Your task to perform on an android device: View the shopping cart on amazon.com. Add "corsair k70" to the cart on amazon.com, then select checkout. Image 0: 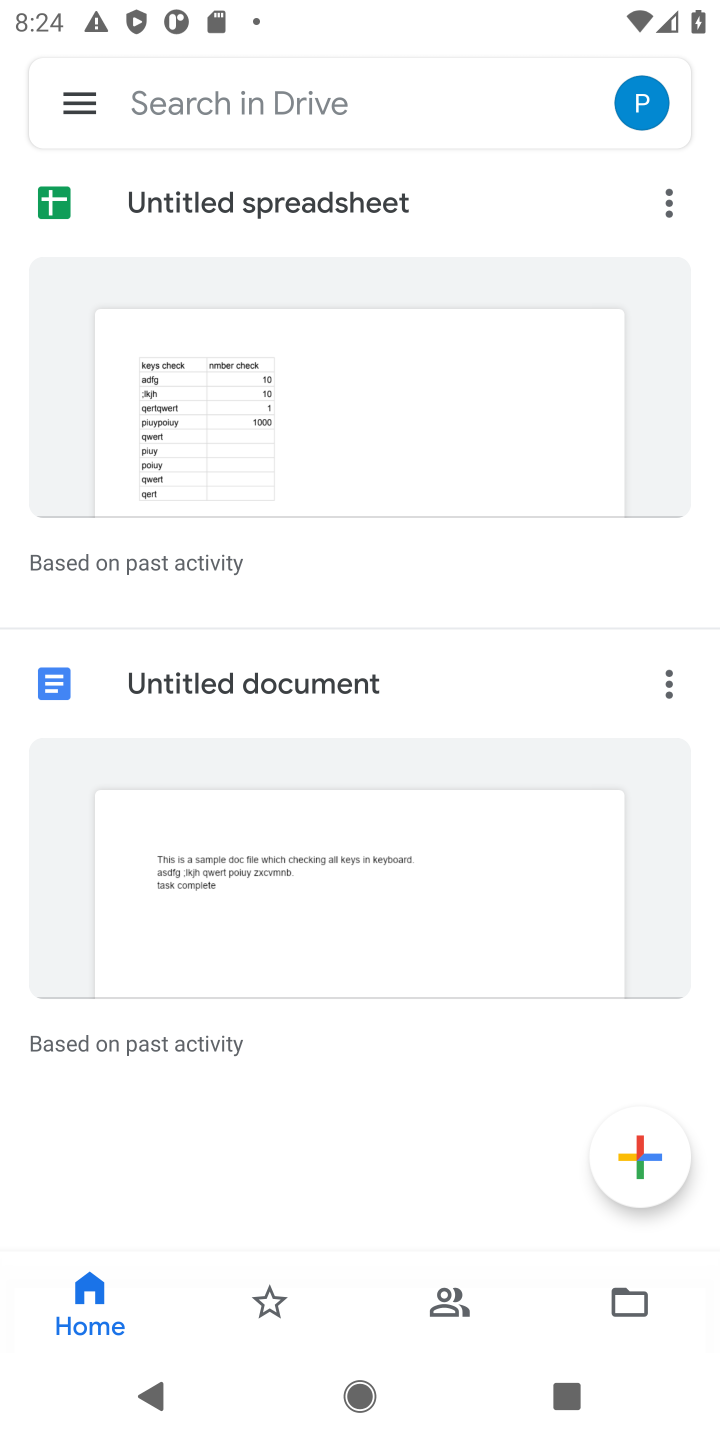
Step 0: press home button
Your task to perform on an android device: View the shopping cart on amazon.com. Add "corsair k70" to the cart on amazon.com, then select checkout. Image 1: 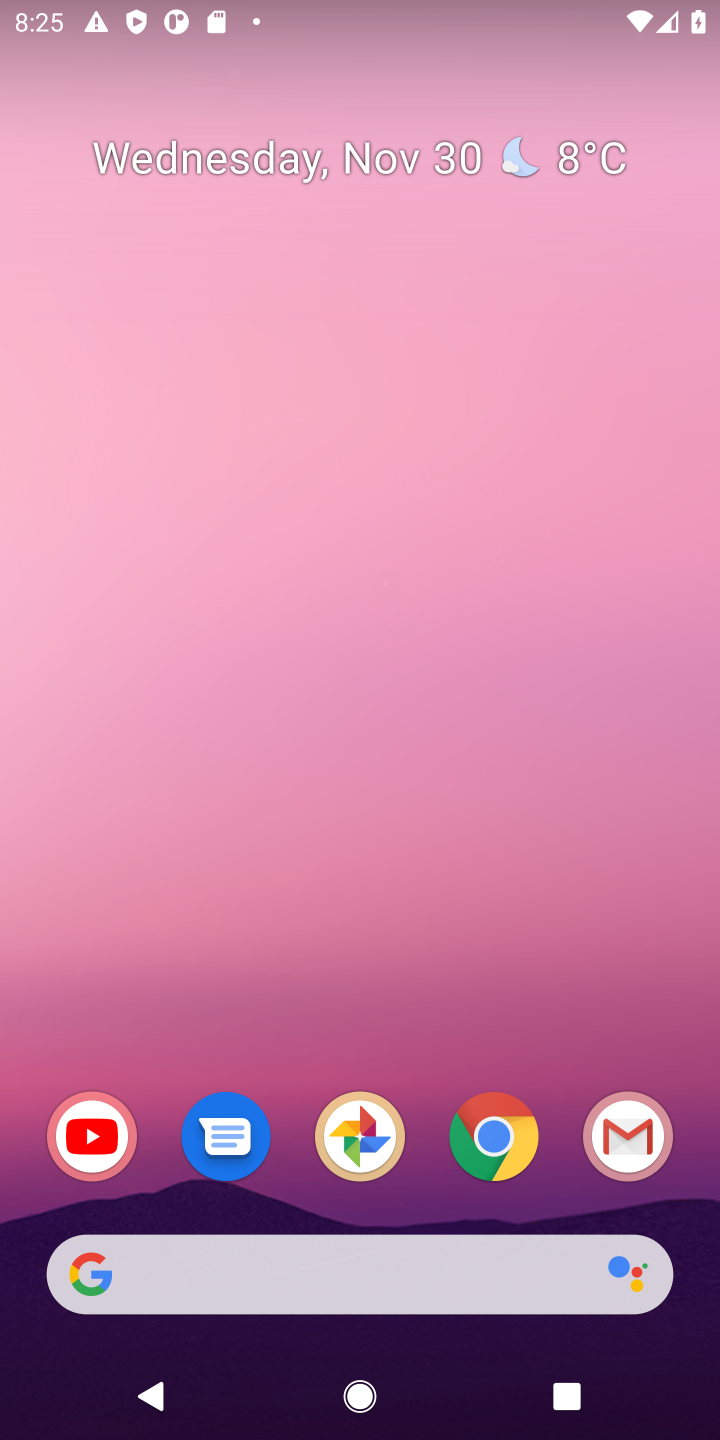
Step 1: click (497, 1130)
Your task to perform on an android device: View the shopping cart on amazon.com. Add "corsair k70" to the cart on amazon.com, then select checkout. Image 2: 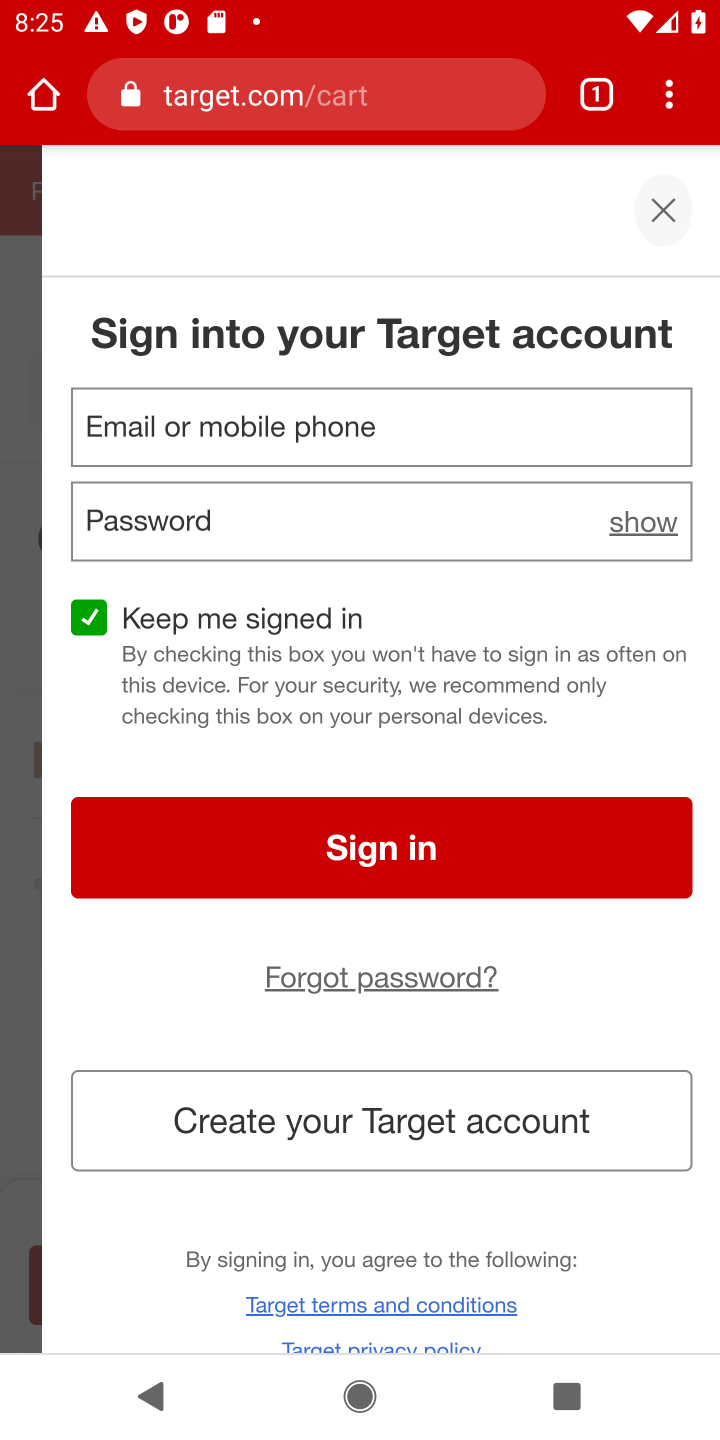
Step 2: click (291, 100)
Your task to perform on an android device: View the shopping cart on amazon.com. Add "corsair k70" to the cart on amazon.com, then select checkout. Image 3: 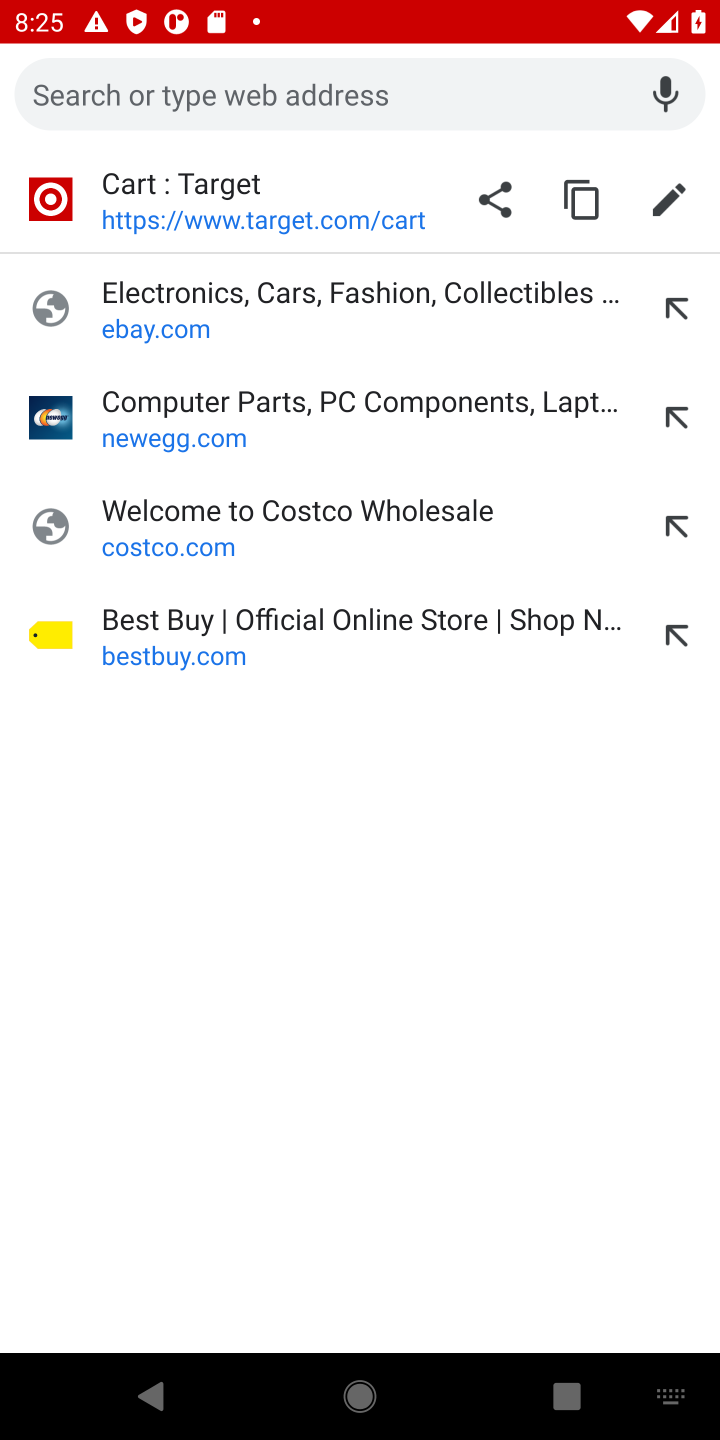
Step 3: type "amazon.com"
Your task to perform on an android device: View the shopping cart on amazon.com. Add "corsair k70" to the cart on amazon.com, then select checkout. Image 4: 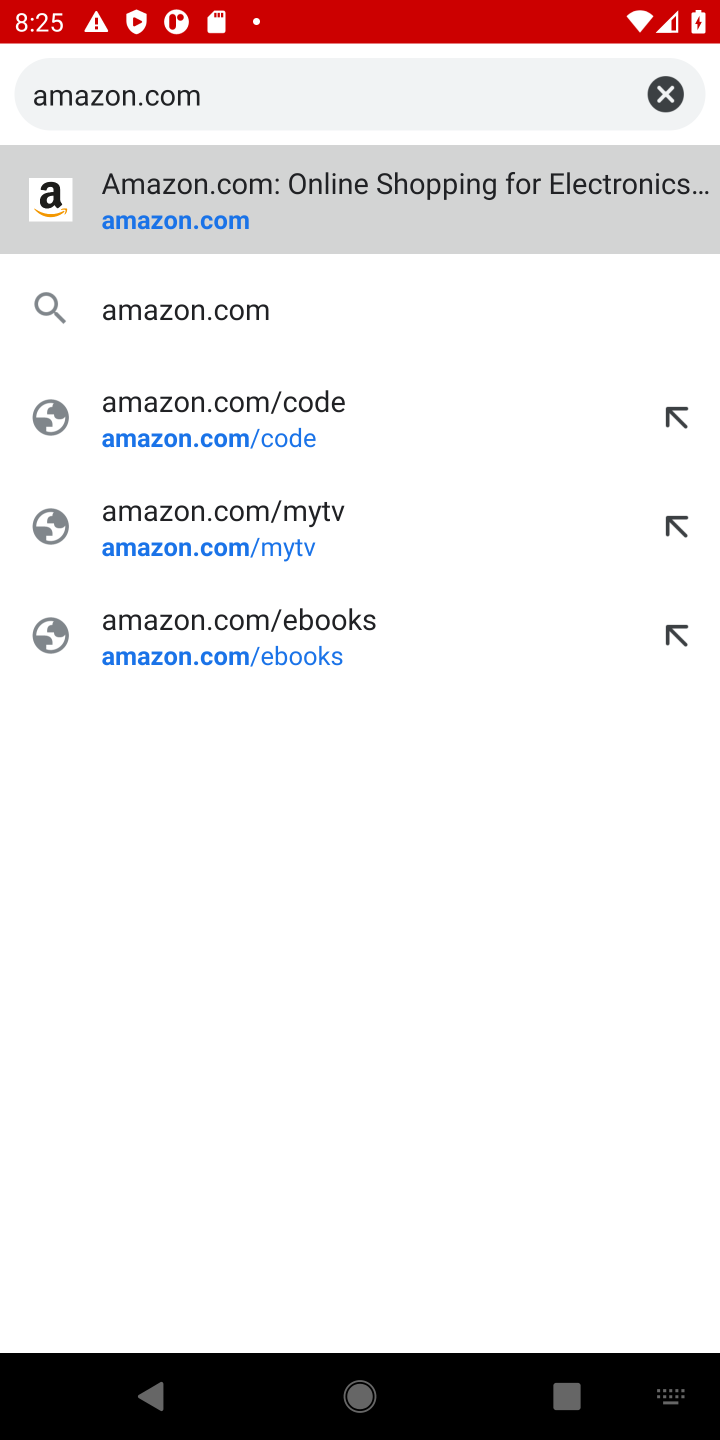
Step 4: click (148, 229)
Your task to perform on an android device: View the shopping cart on amazon.com. Add "corsair k70" to the cart on amazon.com, then select checkout. Image 5: 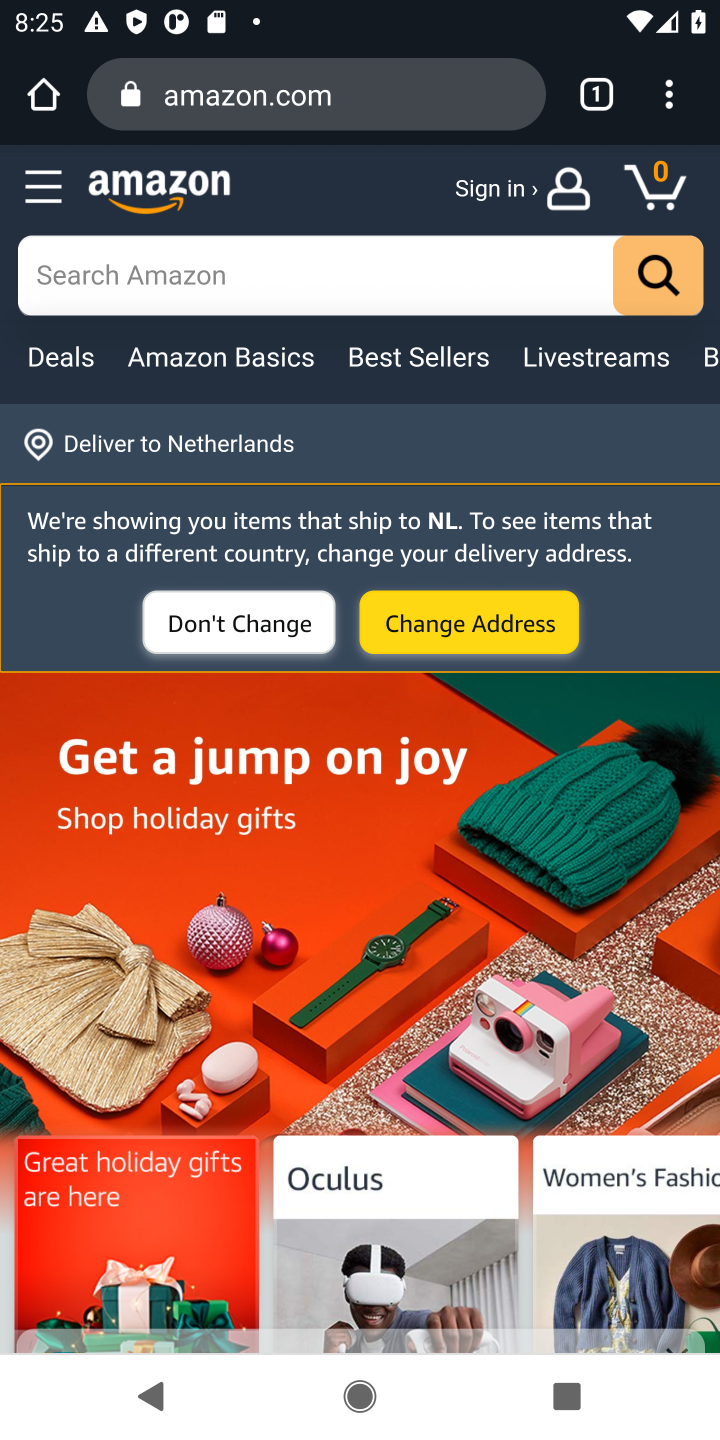
Step 5: click (650, 185)
Your task to perform on an android device: View the shopping cart on amazon.com. Add "corsair k70" to the cart on amazon.com, then select checkout. Image 6: 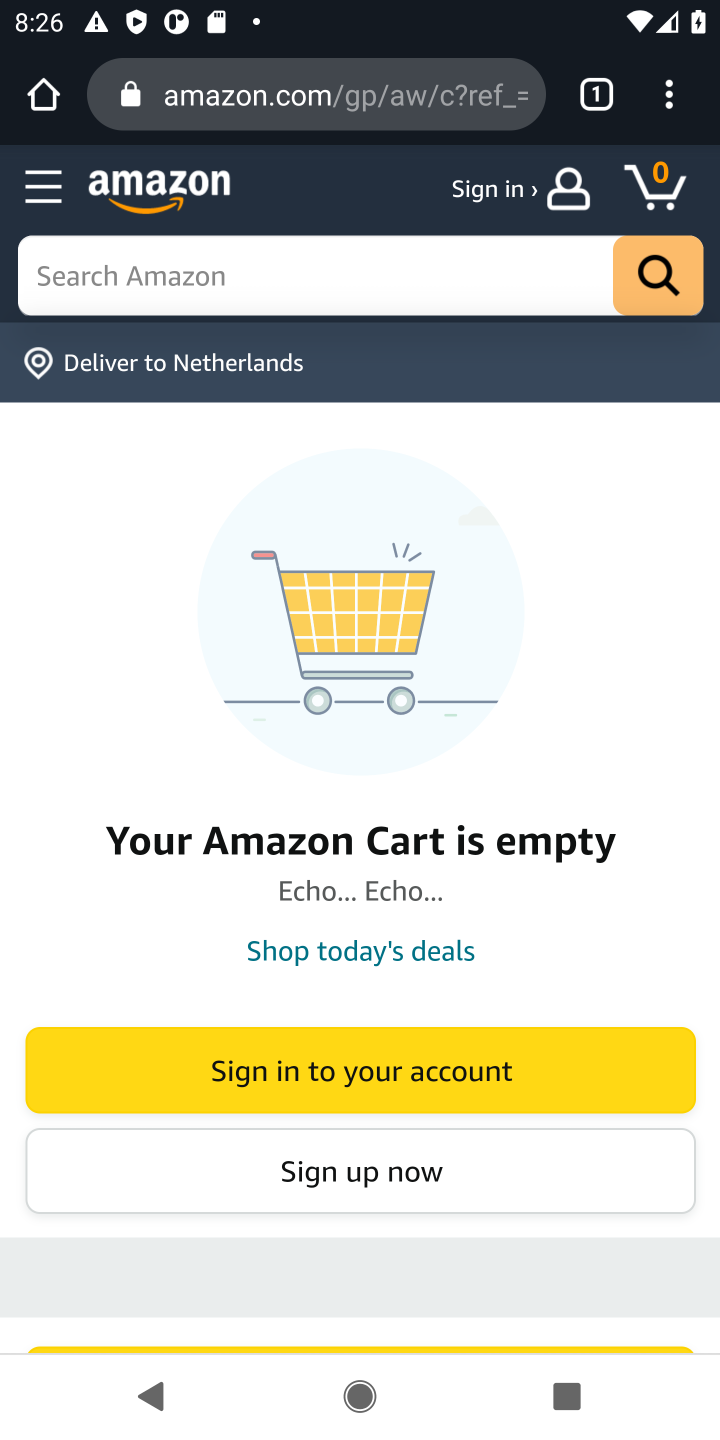
Step 6: click (163, 282)
Your task to perform on an android device: View the shopping cart on amazon.com. Add "corsair k70" to the cart on amazon.com, then select checkout. Image 7: 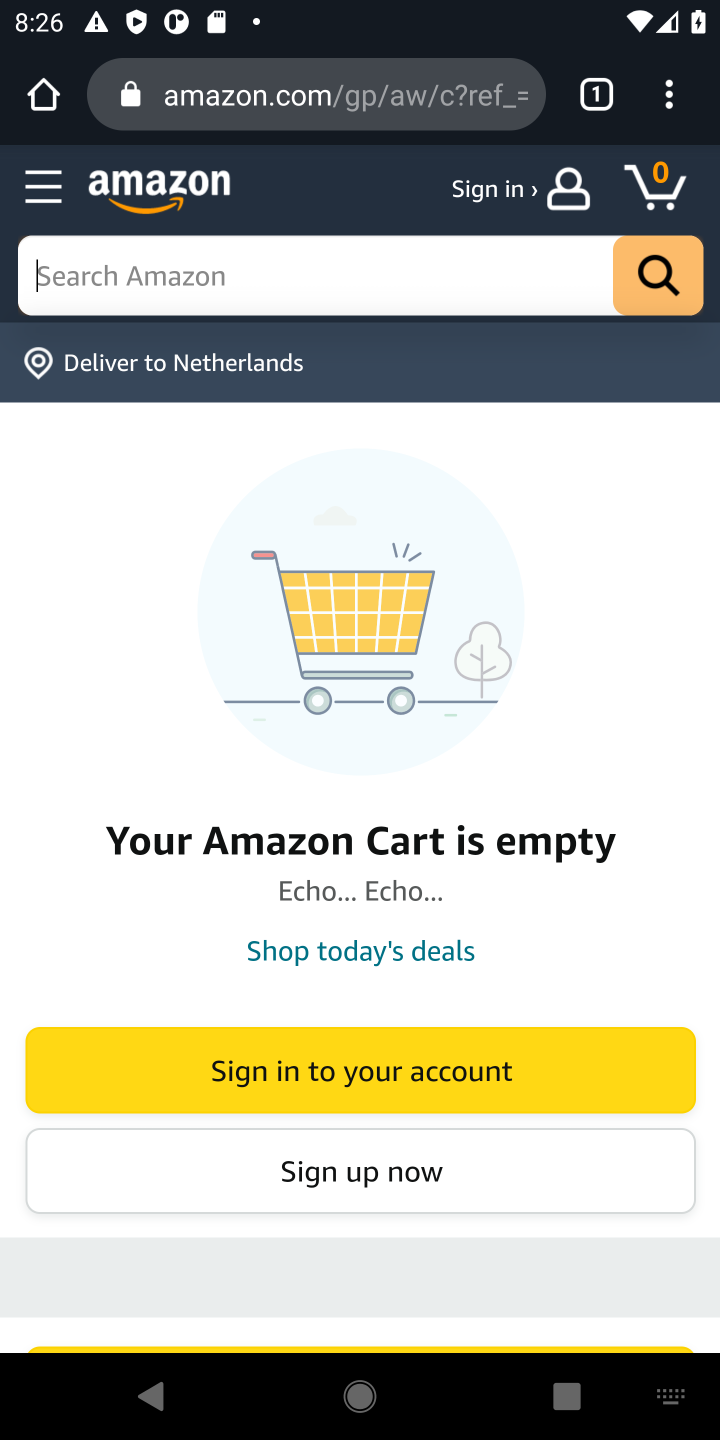
Step 7: type "corsair k70"
Your task to perform on an android device: View the shopping cart on amazon.com. Add "corsair k70" to the cart on amazon.com, then select checkout. Image 8: 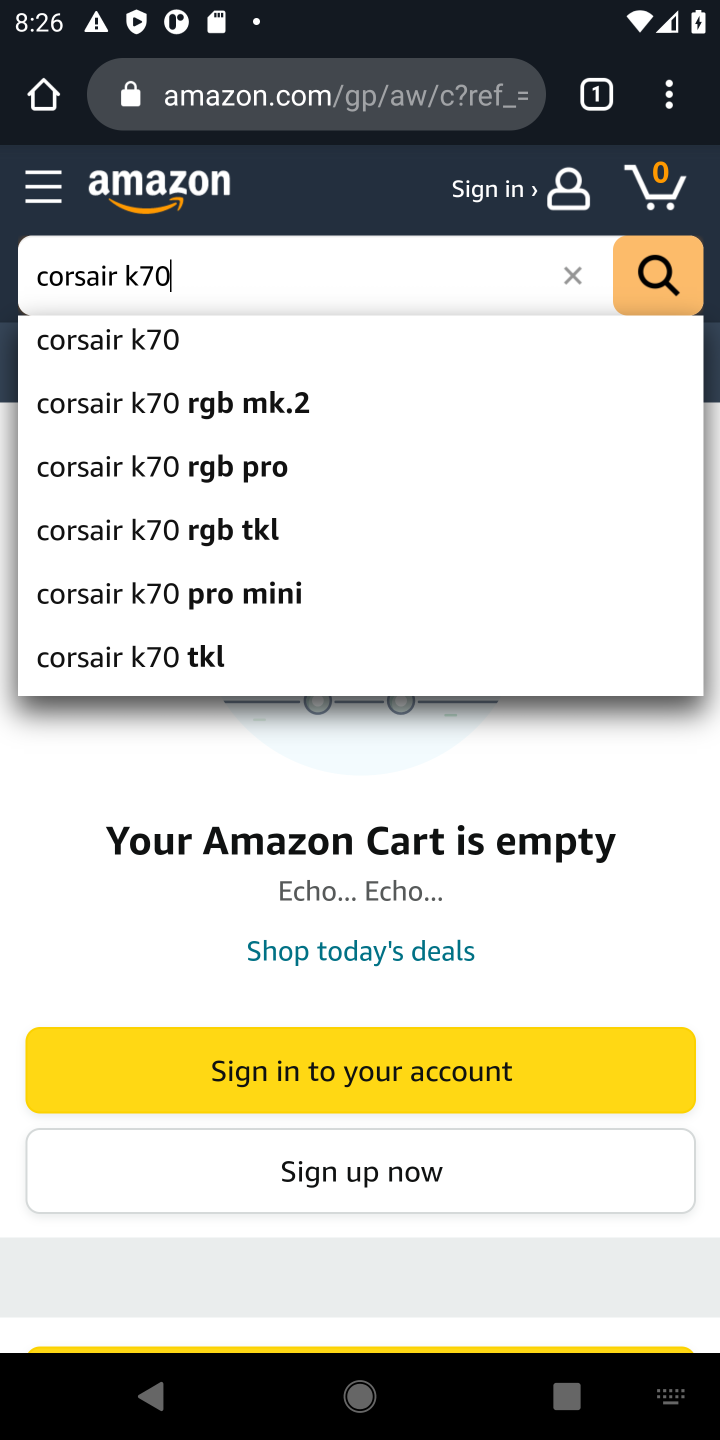
Step 8: click (97, 348)
Your task to perform on an android device: View the shopping cart on amazon.com. Add "corsair k70" to the cart on amazon.com, then select checkout. Image 9: 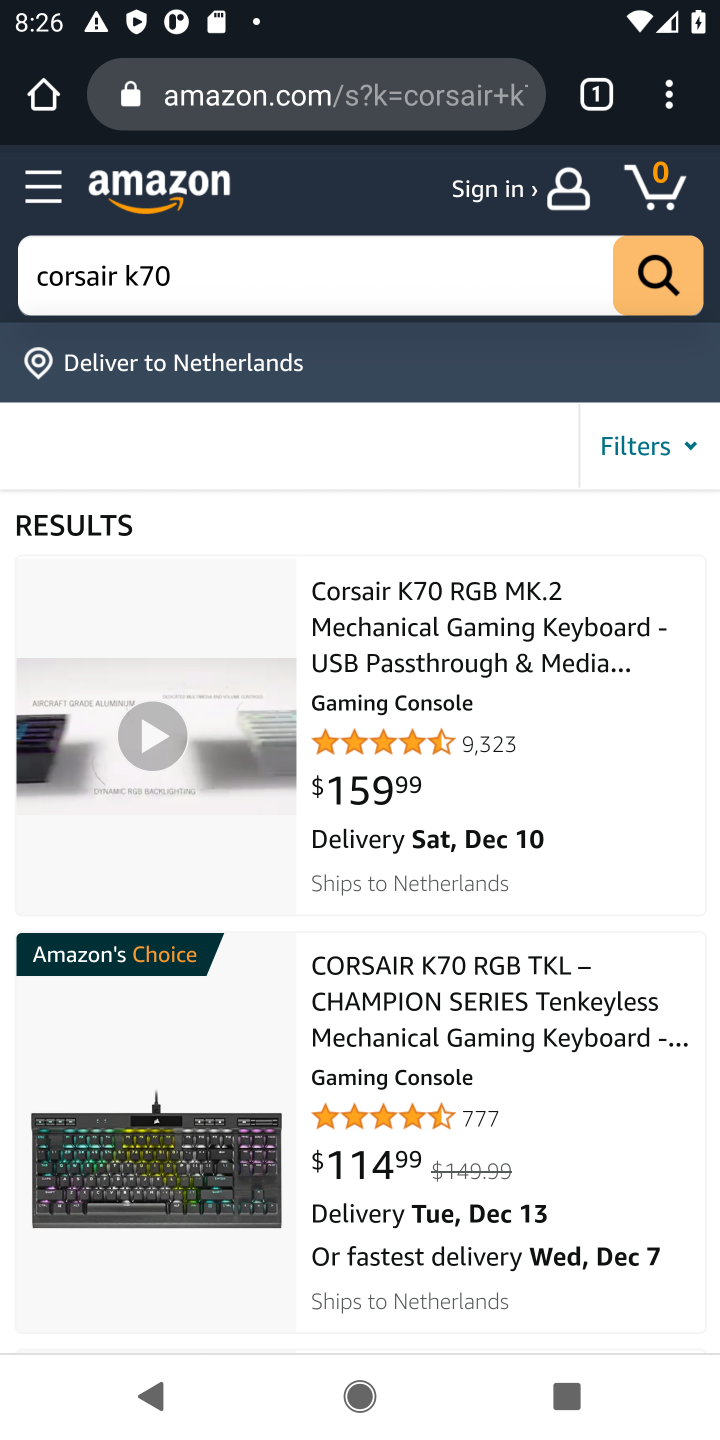
Step 9: click (445, 698)
Your task to perform on an android device: View the shopping cart on amazon.com. Add "corsair k70" to the cart on amazon.com, then select checkout. Image 10: 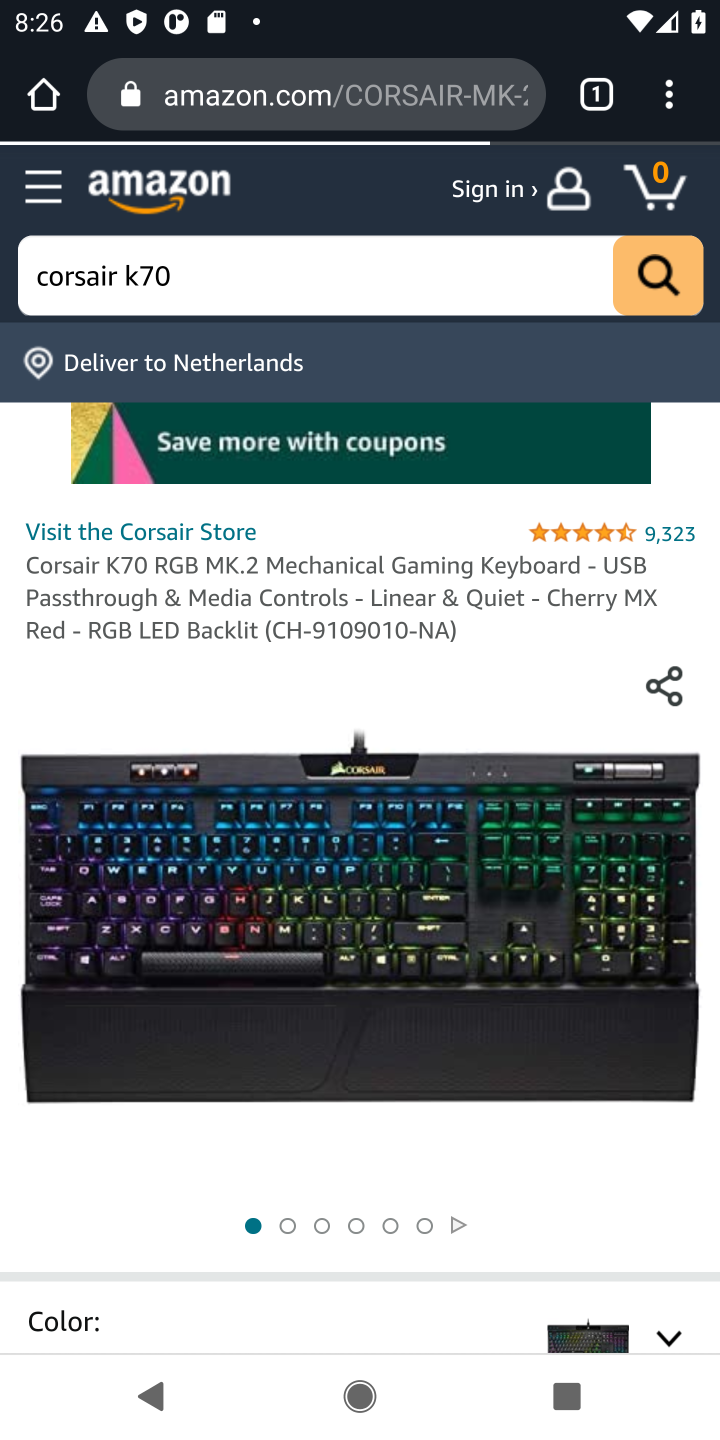
Step 10: drag from (353, 908) to (361, 567)
Your task to perform on an android device: View the shopping cart on amazon.com. Add "corsair k70" to the cart on amazon.com, then select checkout. Image 11: 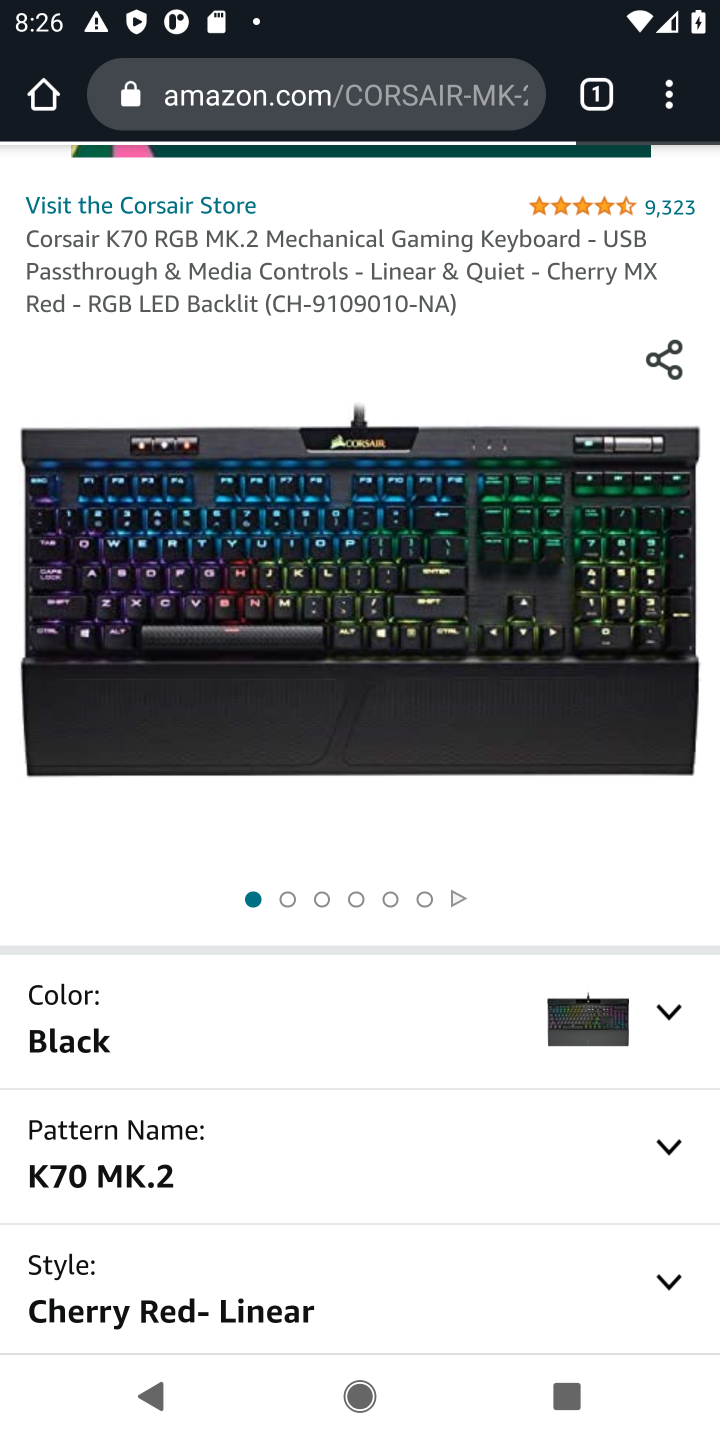
Step 11: drag from (362, 845) to (383, 410)
Your task to perform on an android device: View the shopping cart on amazon.com. Add "corsair k70" to the cart on amazon.com, then select checkout. Image 12: 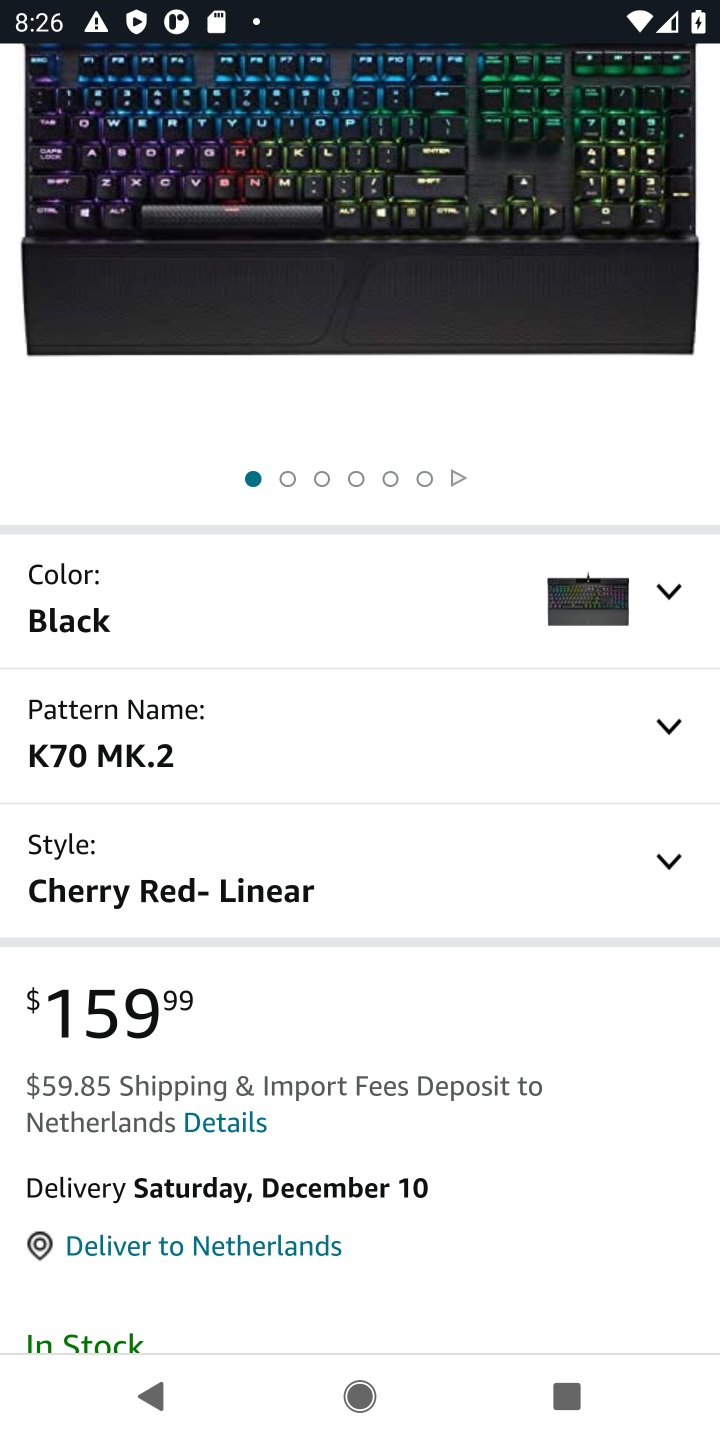
Step 12: drag from (334, 905) to (340, 400)
Your task to perform on an android device: View the shopping cart on amazon.com. Add "corsair k70" to the cart on amazon.com, then select checkout. Image 13: 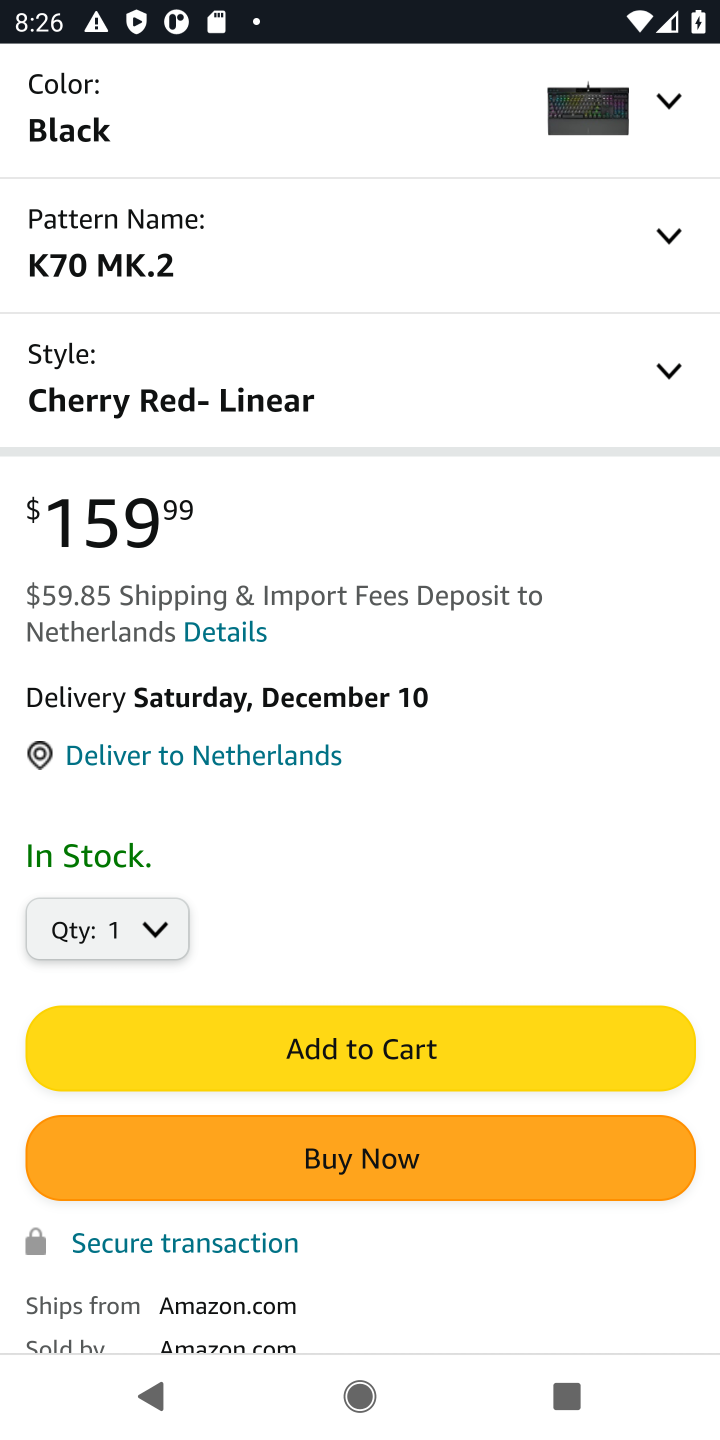
Step 13: click (319, 1043)
Your task to perform on an android device: View the shopping cart on amazon.com. Add "corsair k70" to the cart on amazon.com, then select checkout. Image 14: 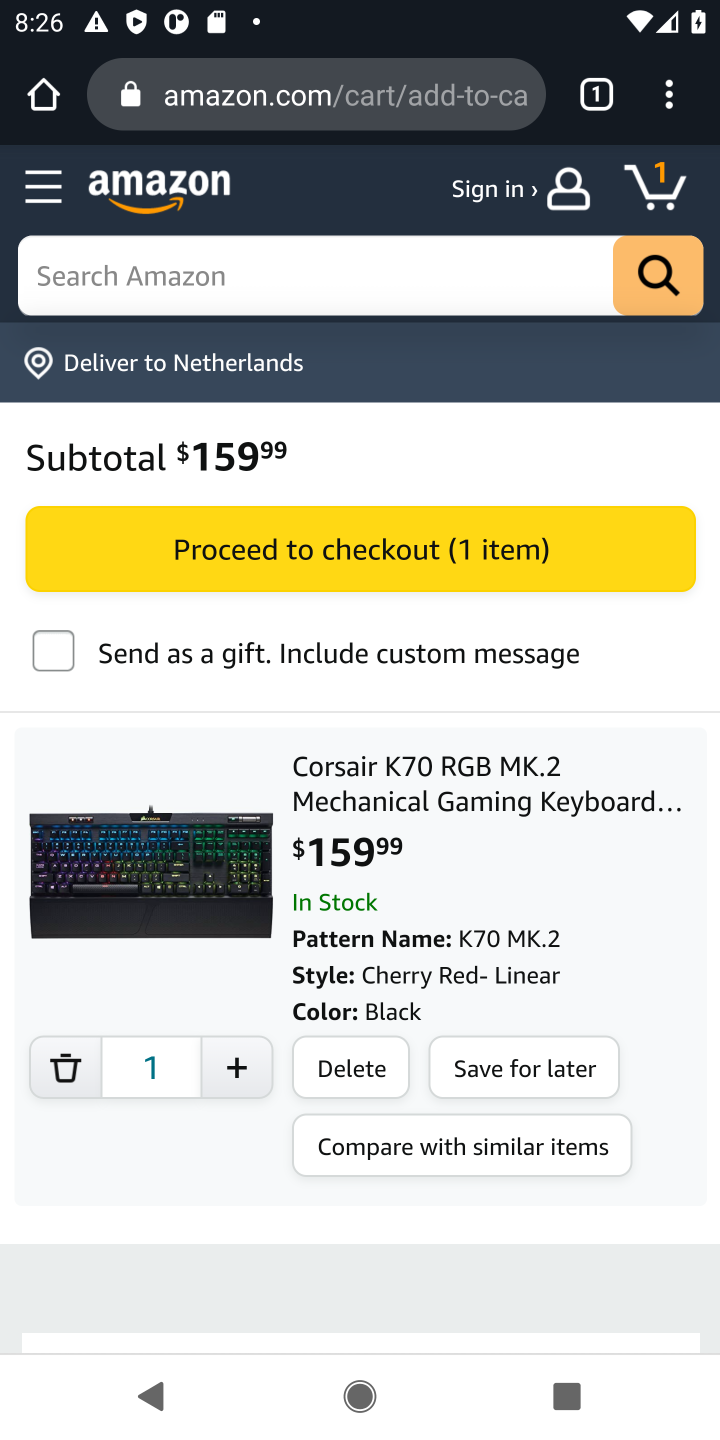
Step 14: click (343, 562)
Your task to perform on an android device: View the shopping cart on amazon.com. Add "corsair k70" to the cart on amazon.com, then select checkout. Image 15: 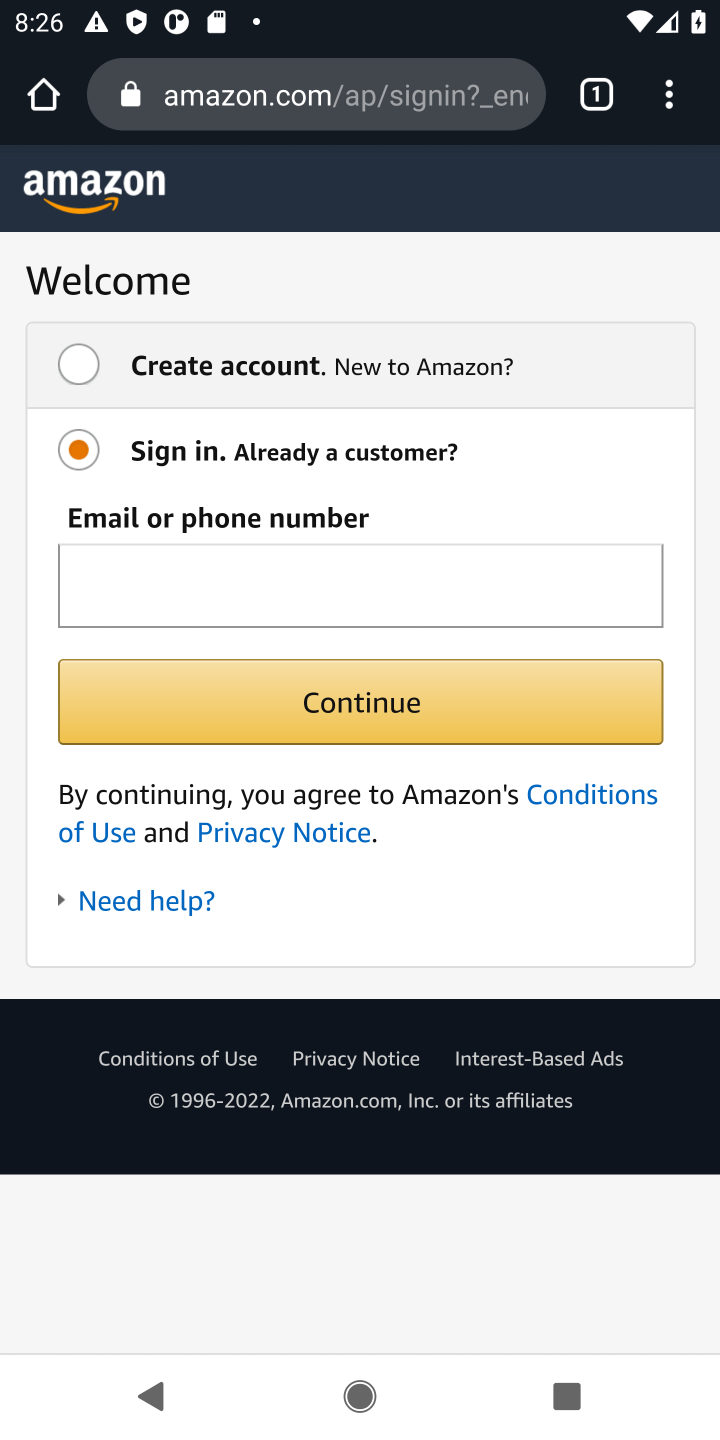
Step 15: task complete